Your task to perform on an android device: refresh tabs in the chrome app Image 0: 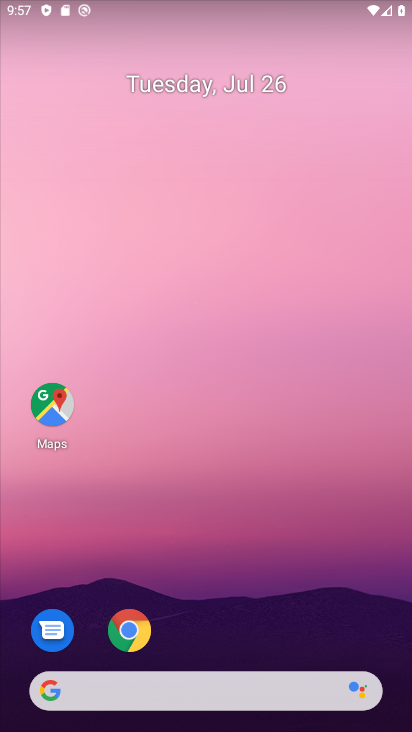
Step 0: click (128, 633)
Your task to perform on an android device: refresh tabs in the chrome app Image 1: 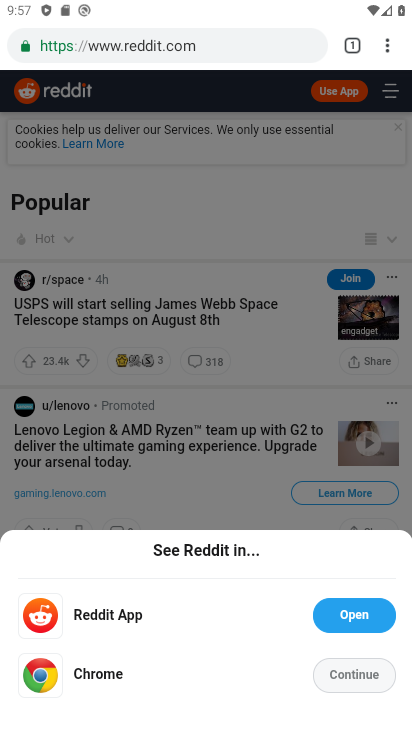
Step 1: click (387, 52)
Your task to perform on an android device: refresh tabs in the chrome app Image 2: 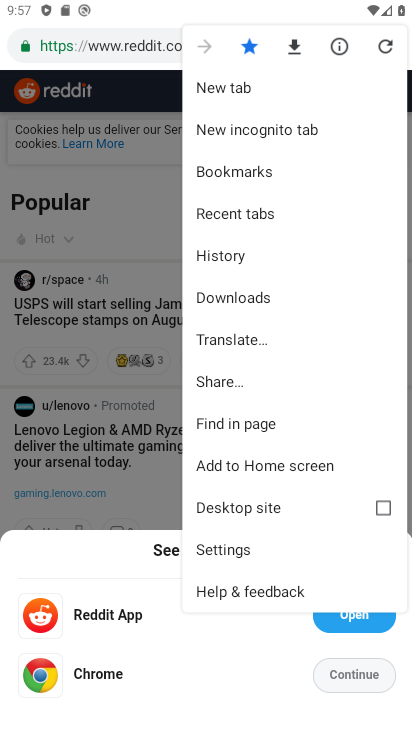
Step 2: click (386, 45)
Your task to perform on an android device: refresh tabs in the chrome app Image 3: 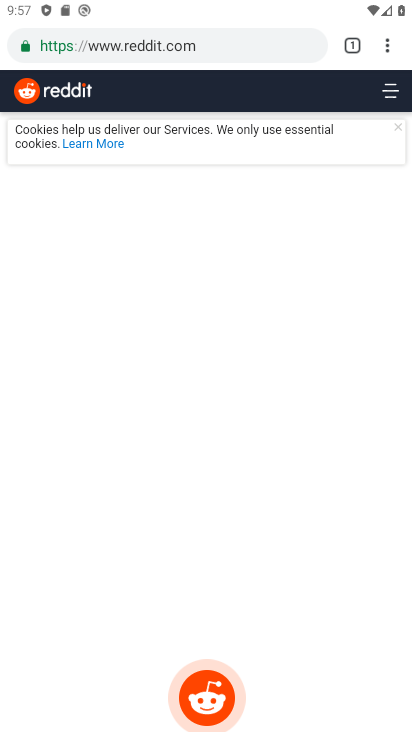
Step 3: task complete